Your task to perform on an android device: Go to CNN.com Image 0: 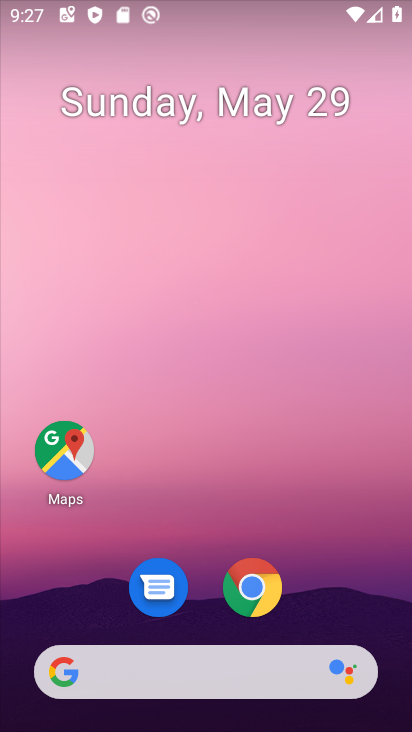
Step 0: click (253, 589)
Your task to perform on an android device: Go to CNN.com Image 1: 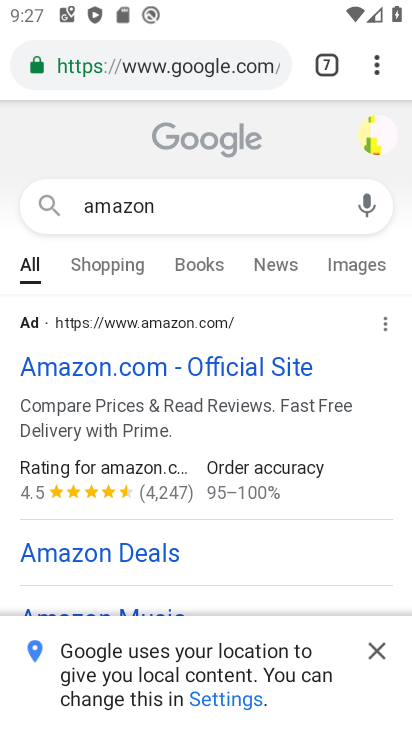
Step 1: click (323, 72)
Your task to perform on an android device: Go to CNN.com Image 2: 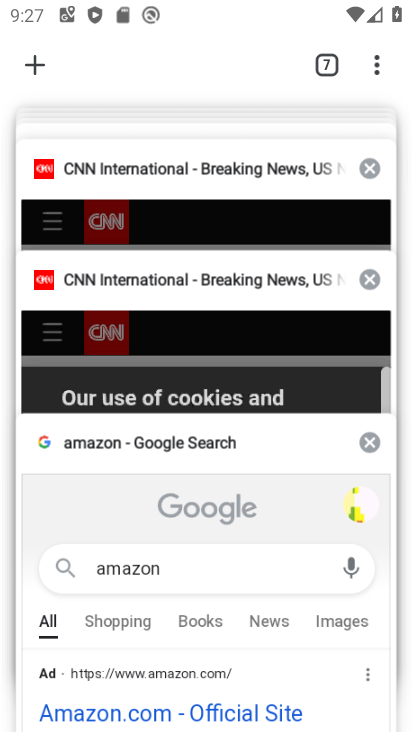
Step 2: click (247, 295)
Your task to perform on an android device: Go to CNN.com Image 3: 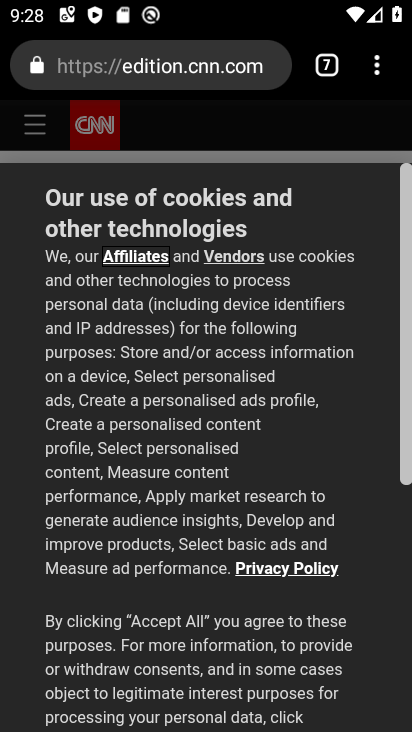
Step 3: task complete